Your task to perform on an android device: see tabs open on other devices in the chrome app Image 0: 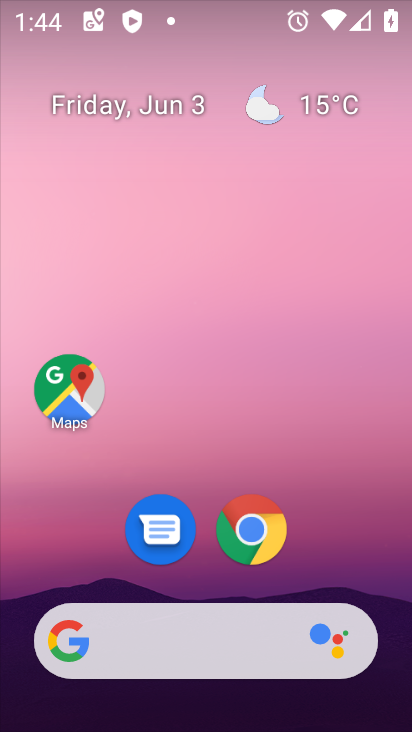
Step 0: drag from (371, 563) to (373, 163)
Your task to perform on an android device: see tabs open on other devices in the chrome app Image 1: 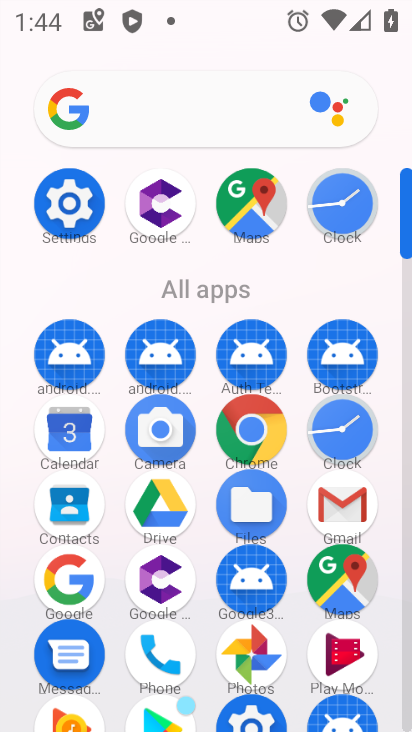
Step 1: click (265, 427)
Your task to perform on an android device: see tabs open on other devices in the chrome app Image 2: 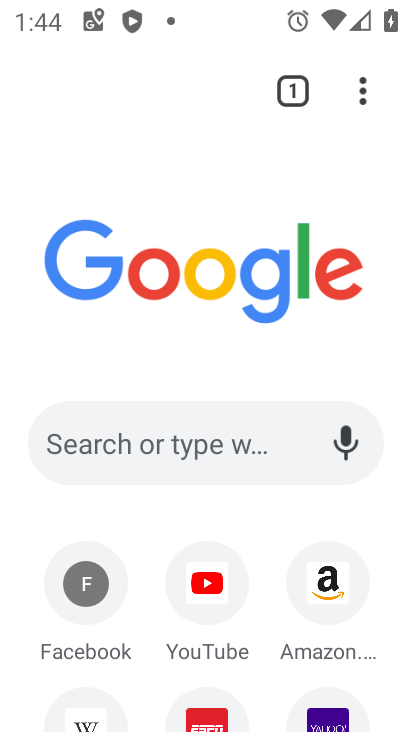
Step 2: click (362, 104)
Your task to perform on an android device: see tabs open on other devices in the chrome app Image 3: 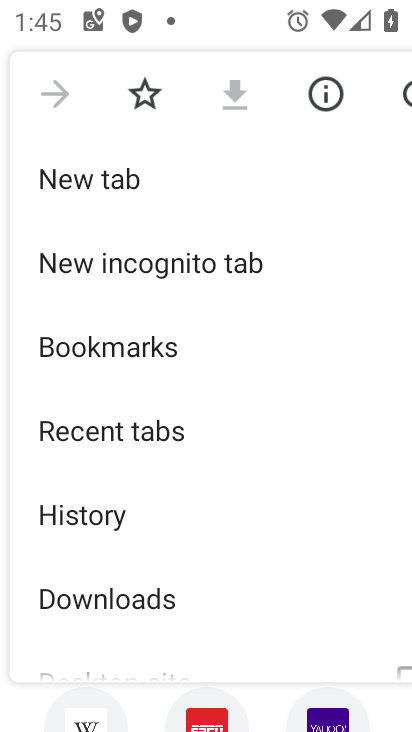
Step 3: drag from (333, 485) to (345, 356)
Your task to perform on an android device: see tabs open on other devices in the chrome app Image 4: 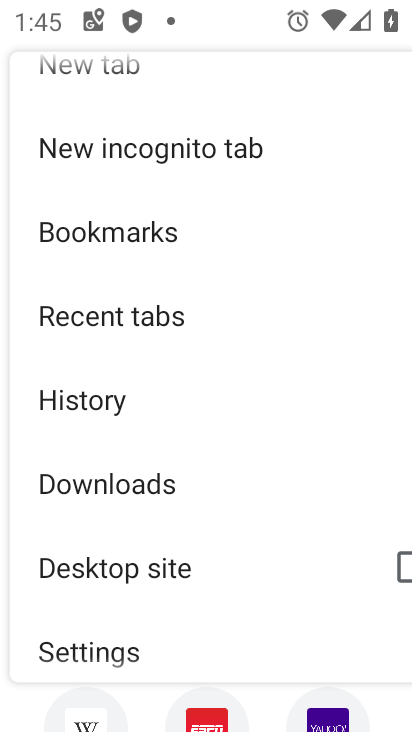
Step 4: drag from (327, 527) to (329, 373)
Your task to perform on an android device: see tabs open on other devices in the chrome app Image 5: 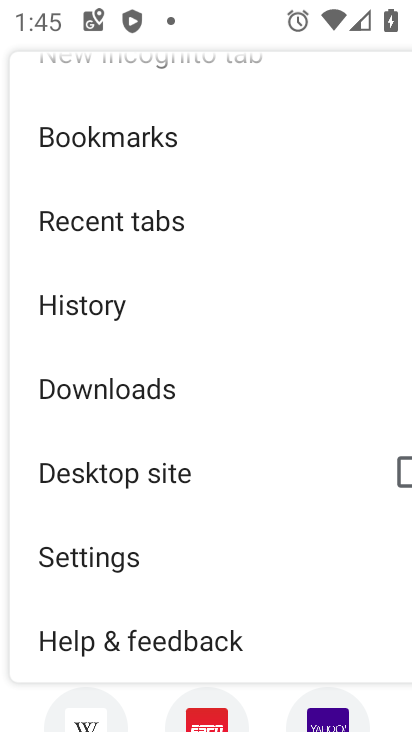
Step 5: drag from (315, 539) to (325, 348)
Your task to perform on an android device: see tabs open on other devices in the chrome app Image 6: 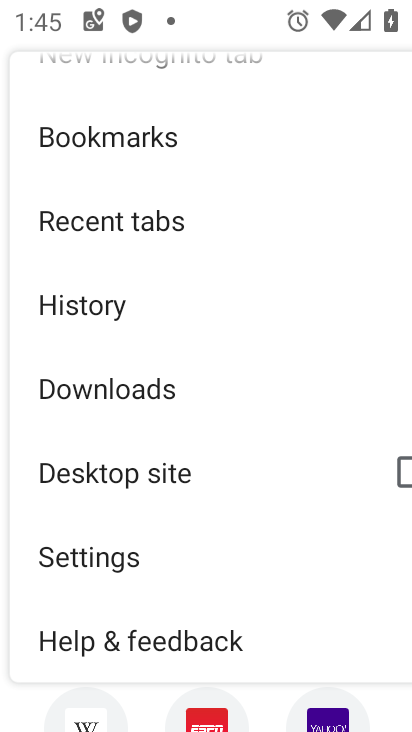
Step 6: click (179, 230)
Your task to perform on an android device: see tabs open on other devices in the chrome app Image 7: 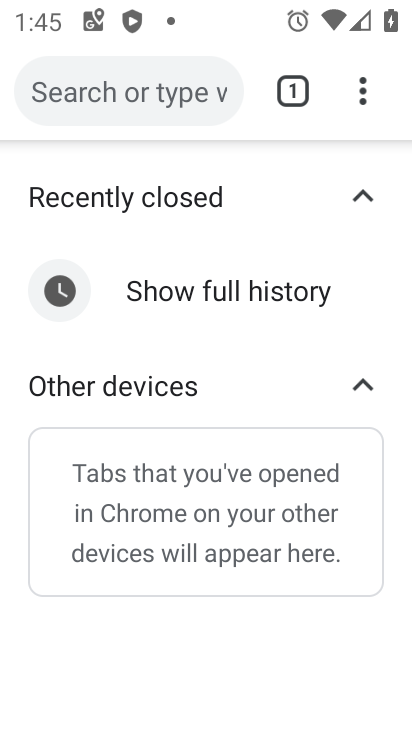
Step 7: click (296, 93)
Your task to perform on an android device: see tabs open on other devices in the chrome app Image 8: 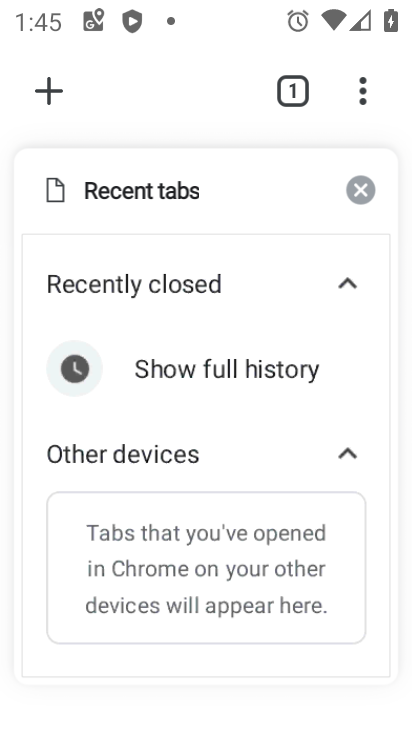
Step 8: task complete